Your task to perform on an android device: Search for pizza restaurants on Maps Image 0: 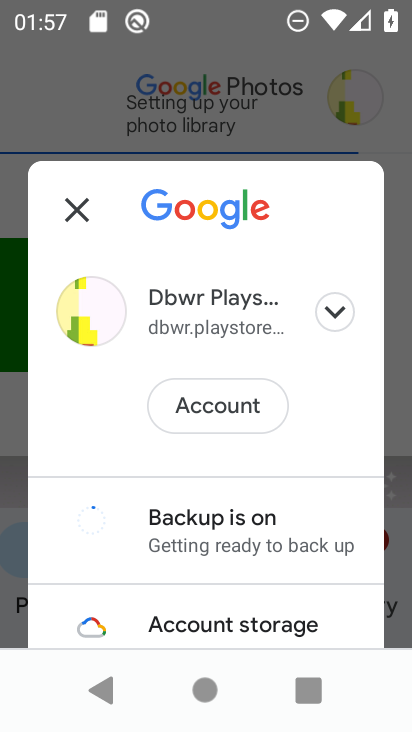
Step 0: press home button
Your task to perform on an android device: Search for pizza restaurants on Maps Image 1: 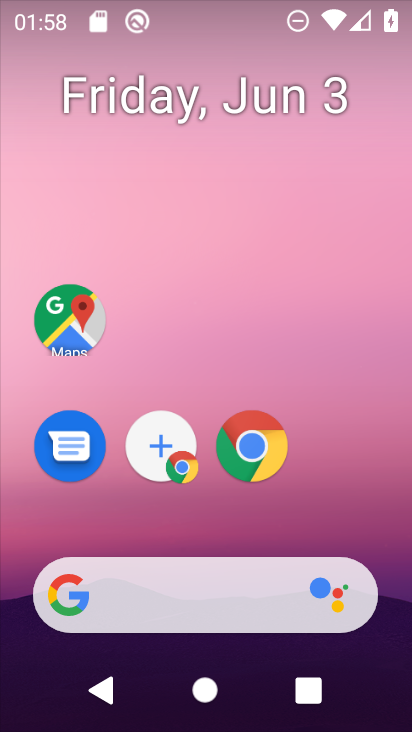
Step 1: click (78, 329)
Your task to perform on an android device: Search for pizza restaurants on Maps Image 2: 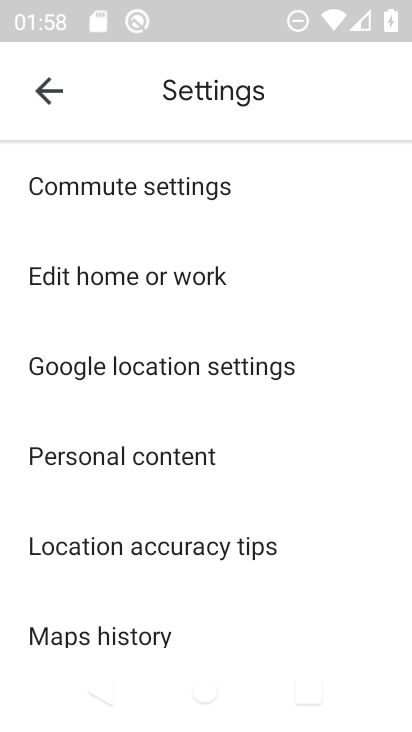
Step 2: click (55, 89)
Your task to perform on an android device: Search for pizza restaurants on Maps Image 3: 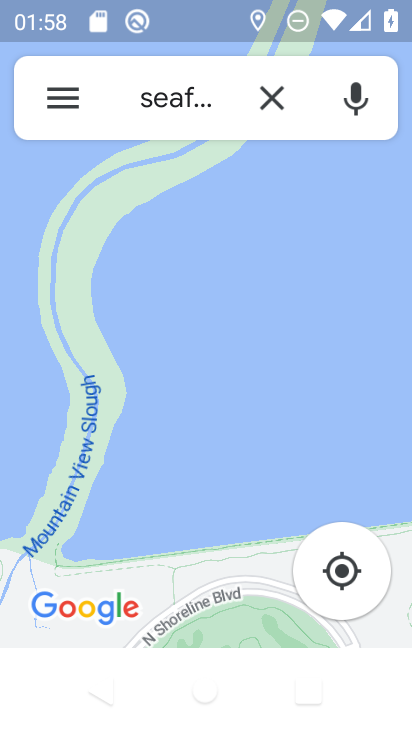
Step 3: click (279, 86)
Your task to perform on an android device: Search for pizza restaurants on Maps Image 4: 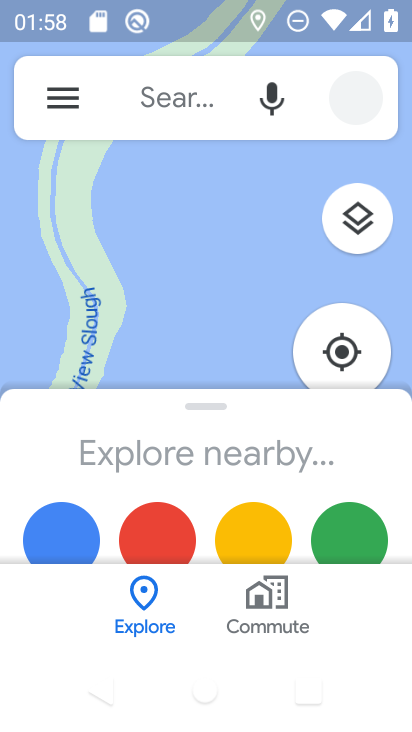
Step 4: click (213, 96)
Your task to perform on an android device: Search for pizza restaurants on Maps Image 5: 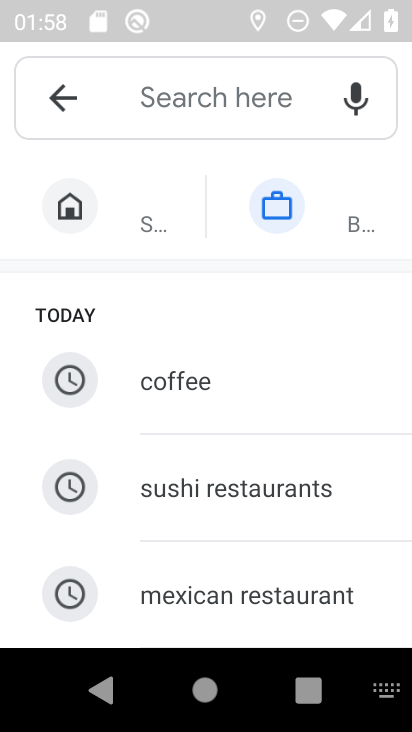
Step 5: drag from (206, 426) to (174, 89)
Your task to perform on an android device: Search for pizza restaurants on Maps Image 6: 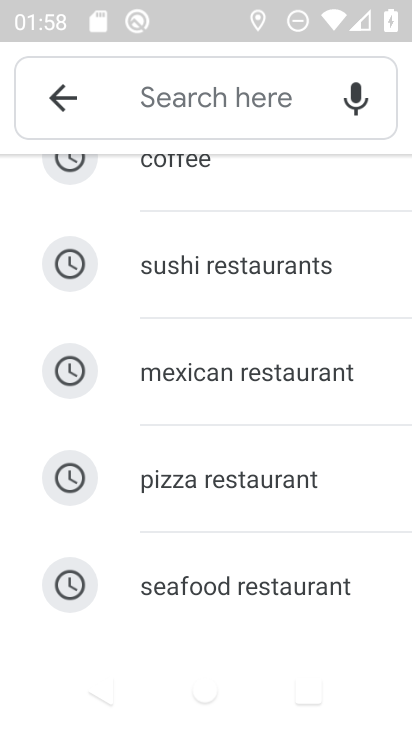
Step 6: click (245, 469)
Your task to perform on an android device: Search for pizza restaurants on Maps Image 7: 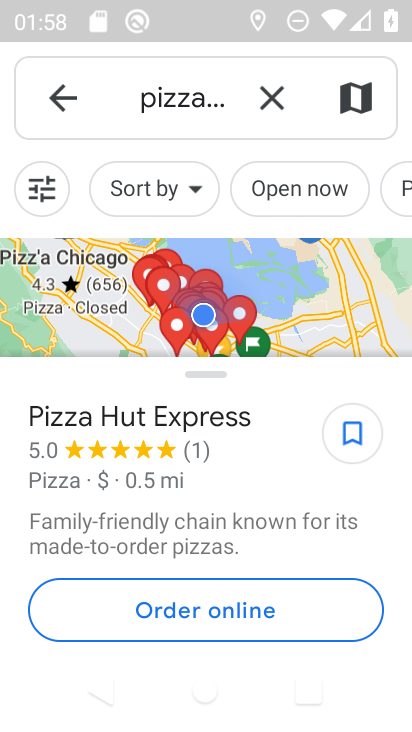
Step 7: task complete